Your task to perform on an android device: toggle wifi Image 0: 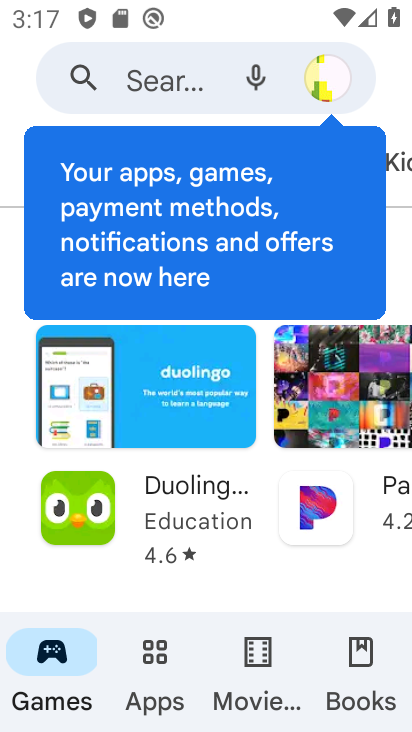
Step 0: press home button
Your task to perform on an android device: toggle wifi Image 1: 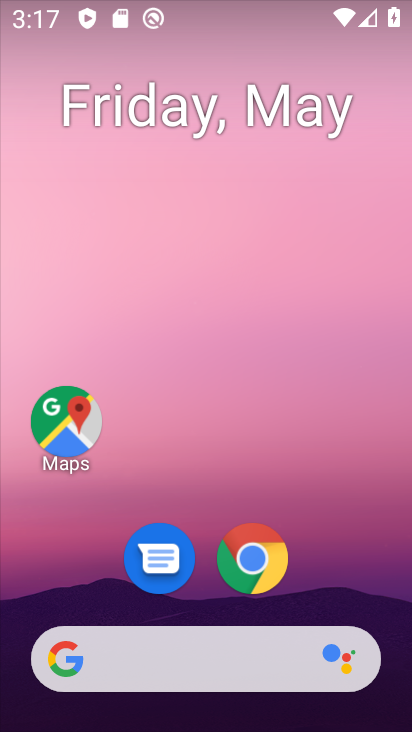
Step 1: drag from (177, 651) to (302, 161)
Your task to perform on an android device: toggle wifi Image 2: 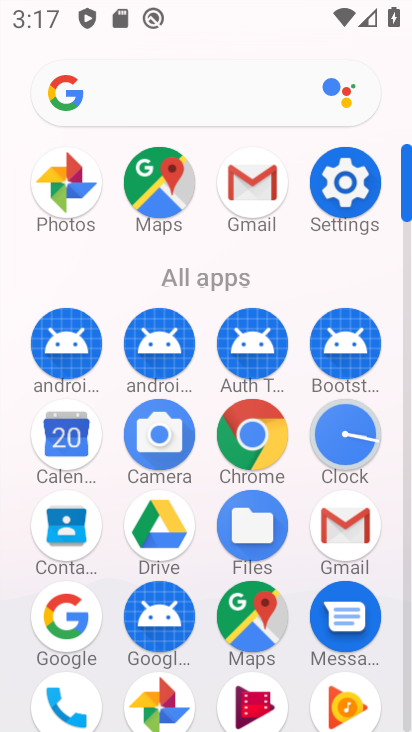
Step 2: click (345, 189)
Your task to perform on an android device: toggle wifi Image 3: 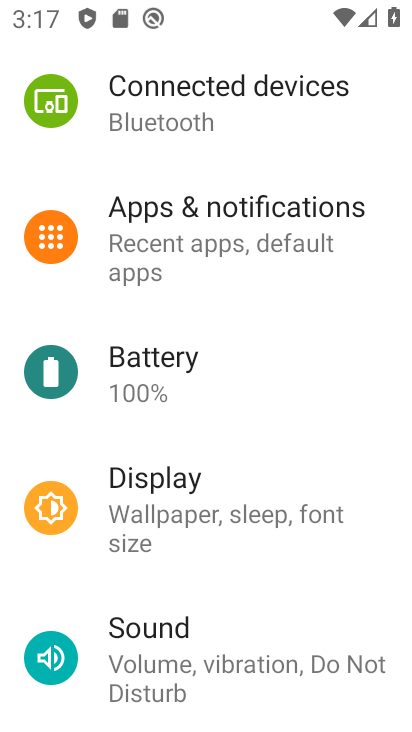
Step 3: drag from (320, 148) to (221, 560)
Your task to perform on an android device: toggle wifi Image 4: 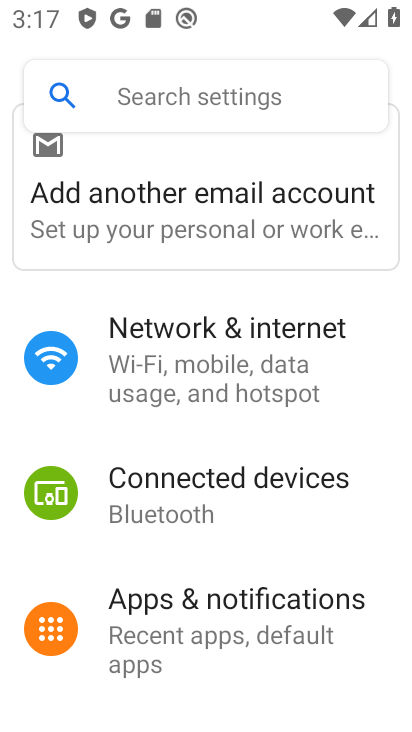
Step 4: click (268, 330)
Your task to perform on an android device: toggle wifi Image 5: 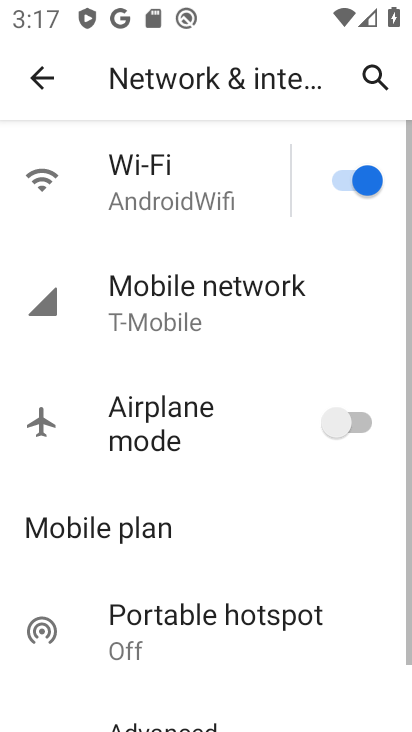
Step 5: click (341, 181)
Your task to perform on an android device: toggle wifi Image 6: 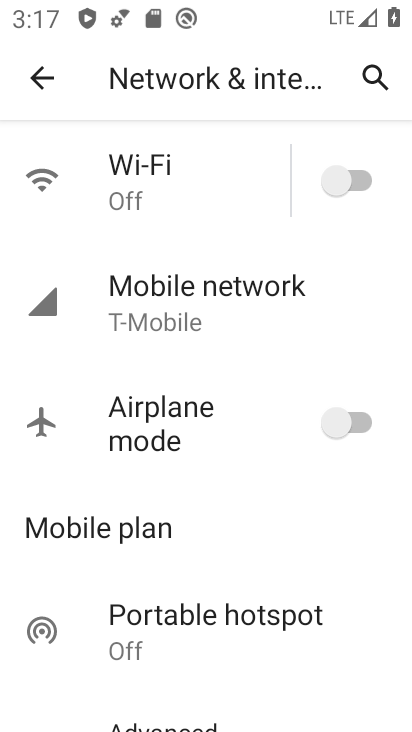
Step 6: task complete